Your task to perform on an android device: turn off priority inbox in the gmail app Image 0: 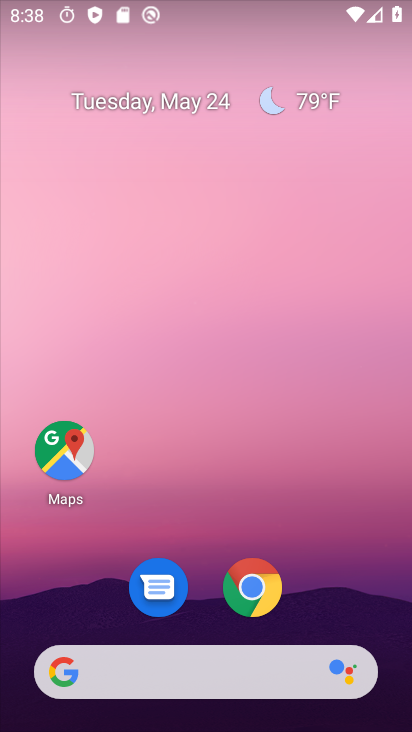
Step 0: drag from (322, 595) to (210, 193)
Your task to perform on an android device: turn off priority inbox in the gmail app Image 1: 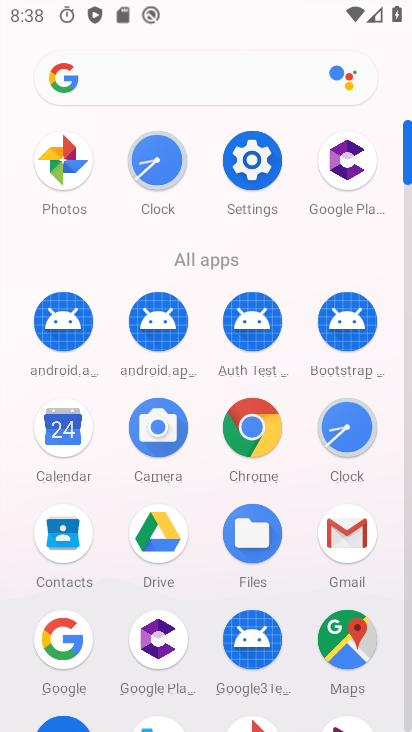
Step 1: click (349, 534)
Your task to perform on an android device: turn off priority inbox in the gmail app Image 2: 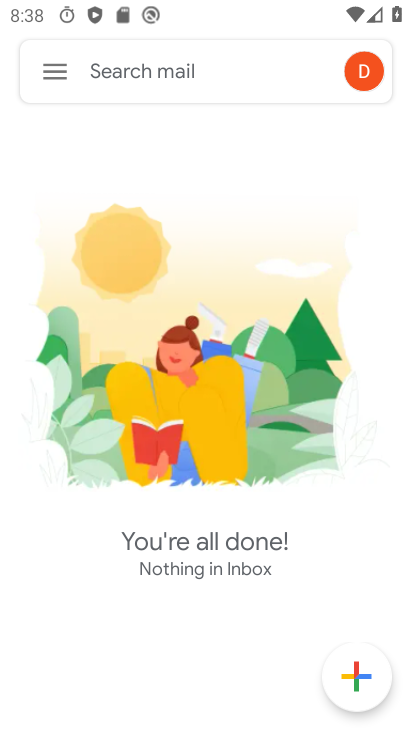
Step 2: click (57, 73)
Your task to perform on an android device: turn off priority inbox in the gmail app Image 3: 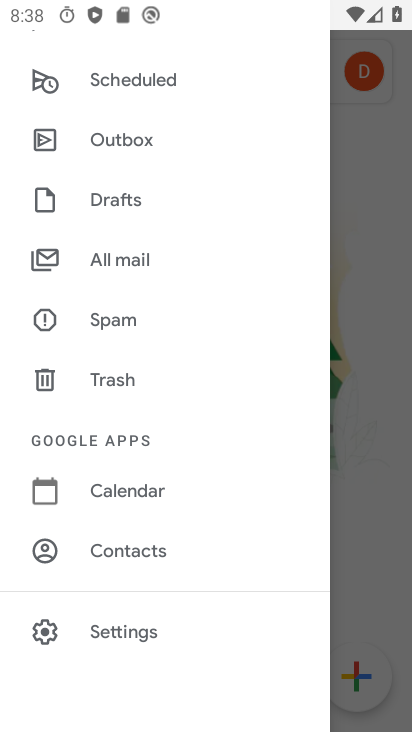
Step 3: click (152, 629)
Your task to perform on an android device: turn off priority inbox in the gmail app Image 4: 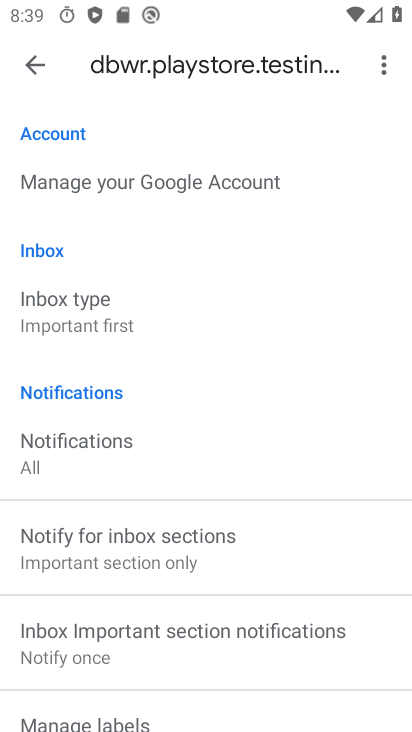
Step 4: click (99, 326)
Your task to perform on an android device: turn off priority inbox in the gmail app Image 5: 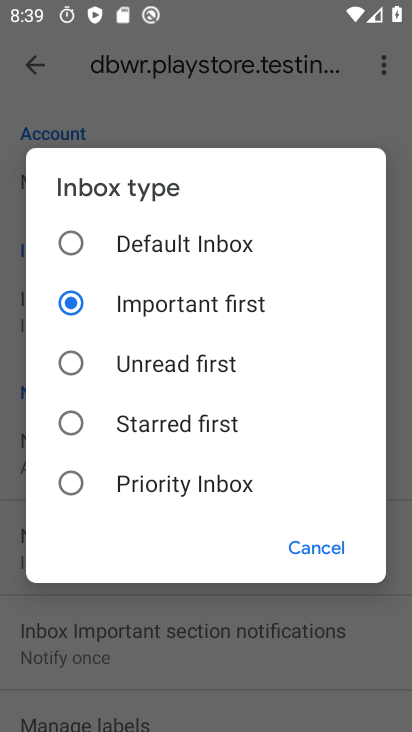
Step 5: click (65, 300)
Your task to perform on an android device: turn off priority inbox in the gmail app Image 6: 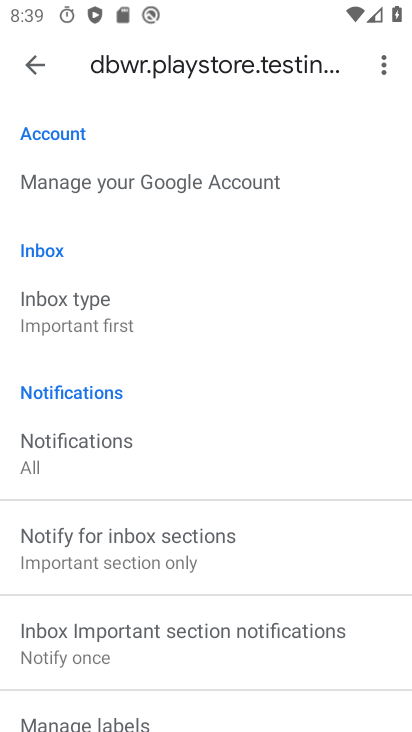
Step 6: task complete